Your task to perform on an android device: read, delete, or share a saved page in the chrome app Image 0: 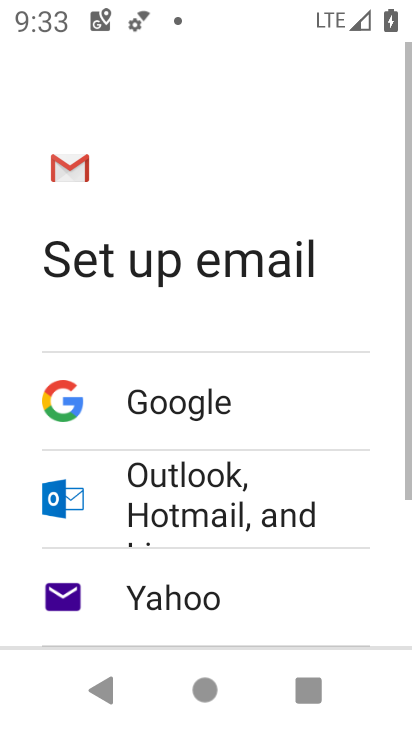
Step 0: press home button
Your task to perform on an android device: read, delete, or share a saved page in the chrome app Image 1: 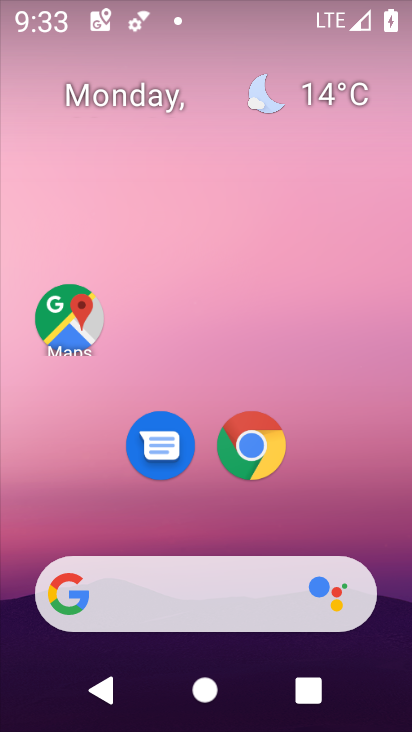
Step 1: drag from (210, 520) to (246, 66)
Your task to perform on an android device: read, delete, or share a saved page in the chrome app Image 2: 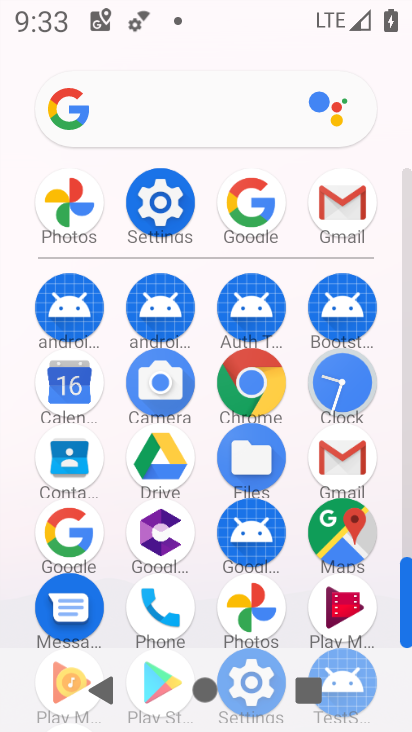
Step 2: click (249, 590)
Your task to perform on an android device: read, delete, or share a saved page in the chrome app Image 3: 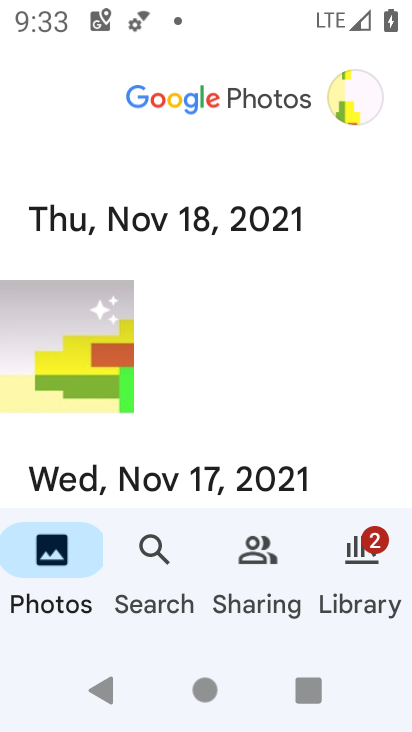
Step 3: press home button
Your task to perform on an android device: read, delete, or share a saved page in the chrome app Image 4: 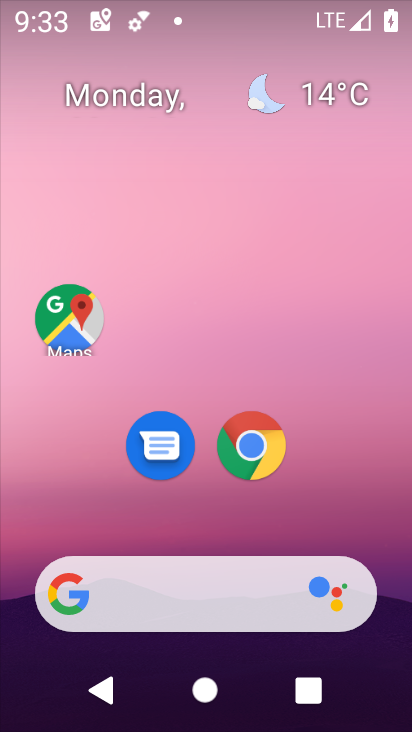
Step 4: click (248, 443)
Your task to perform on an android device: read, delete, or share a saved page in the chrome app Image 5: 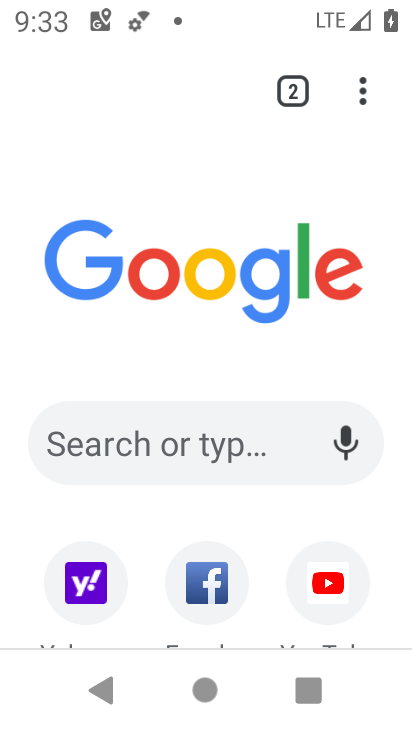
Step 5: click (365, 78)
Your task to perform on an android device: read, delete, or share a saved page in the chrome app Image 6: 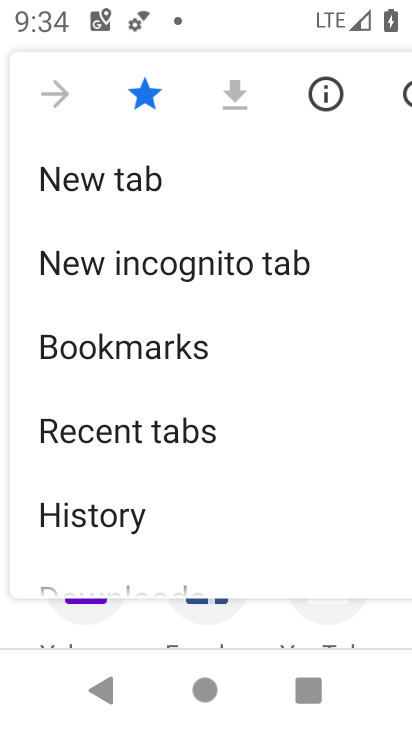
Step 6: drag from (184, 527) to (220, 234)
Your task to perform on an android device: read, delete, or share a saved page in the chrome app Image 7: 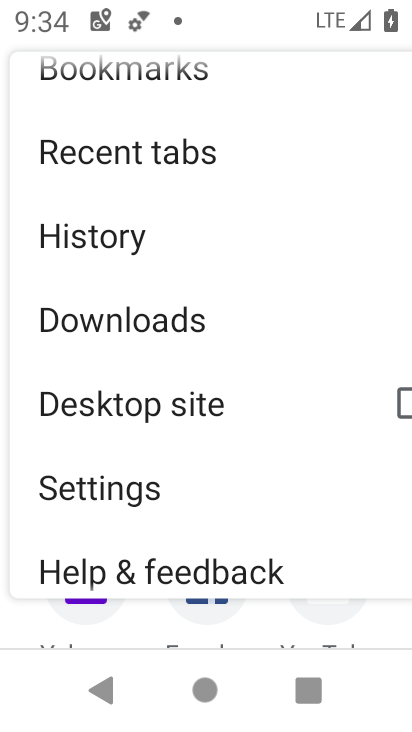
Step 7: click (217, 316)
Your task to perform on an android device: read, delete, or share a saved page in the chrome app Image 8: 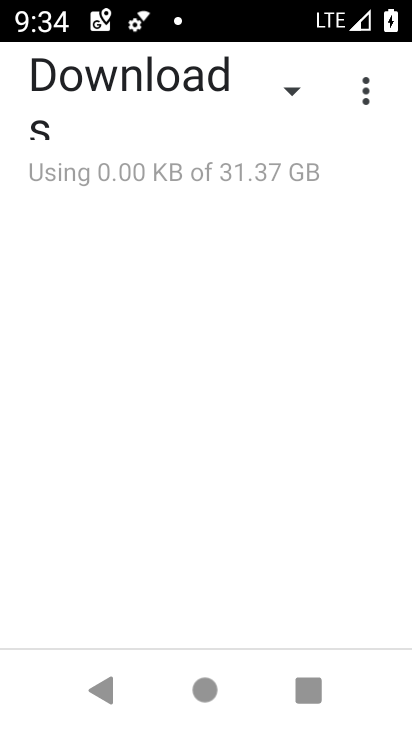
Step 8: task complete